Your task to perform on an android device: toggle notification dots Image 0: 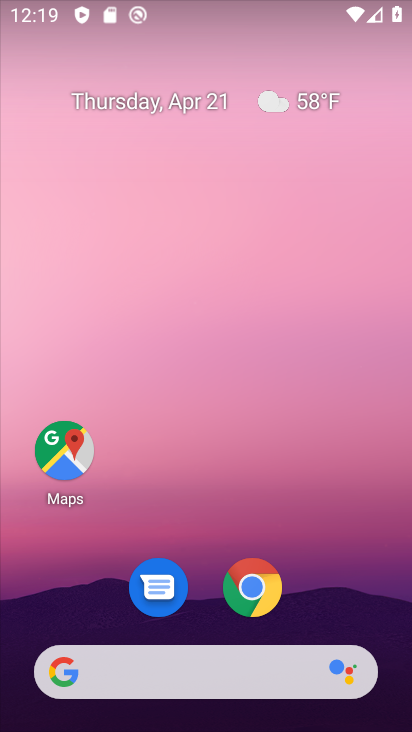
Step 0: drag from (300, 607) to (348, 68)
Your task to perform on an android device: toggle notification dots Image 1: 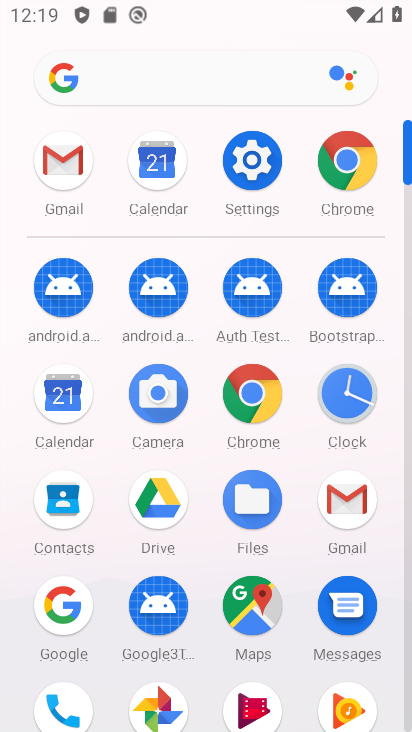
Step 1: click (234, 170)
Your task to perform on an android device: toggle notification dots Image 2: 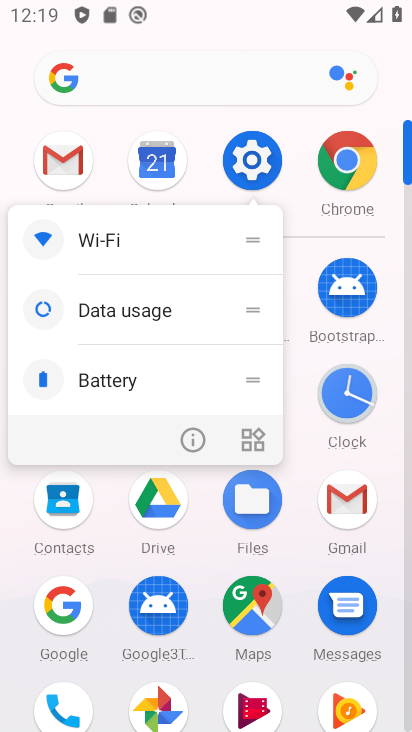
Step 2: click (251, 151)
Your task to perform on an android device: toggle notification dots Image 3: 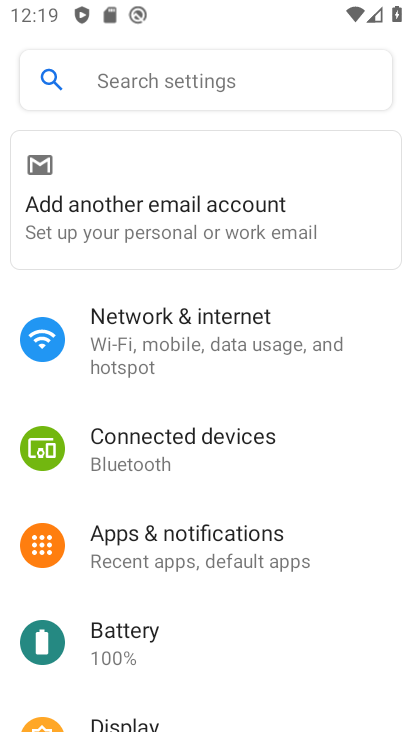
Step 3: click (196, 548)
Your task to perform on an android device: toggle notification dots Image 4: 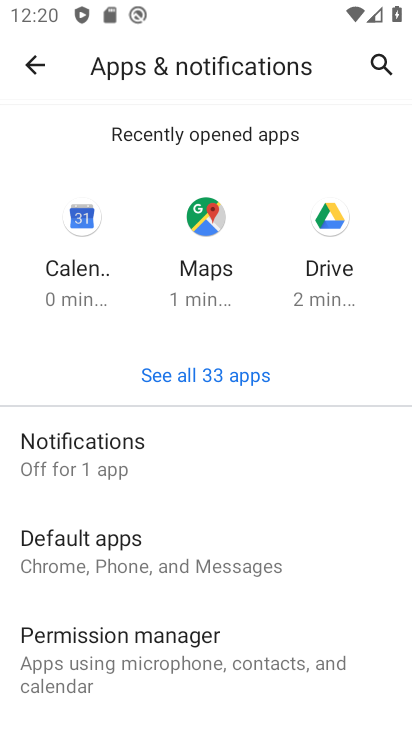
Step 4: click (112, 472)
Your task to perform on an android device: toggle notification dots Image 5: 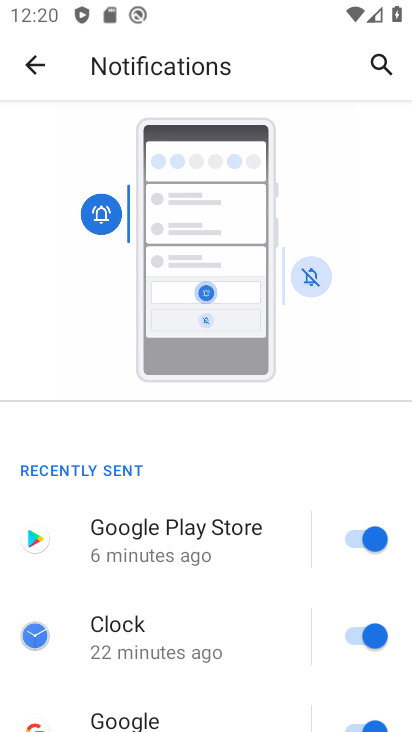
Step 5: drag from (147, 530) to (220, 294)
Your task to perform on an android device: toggle notification dots Image 6: 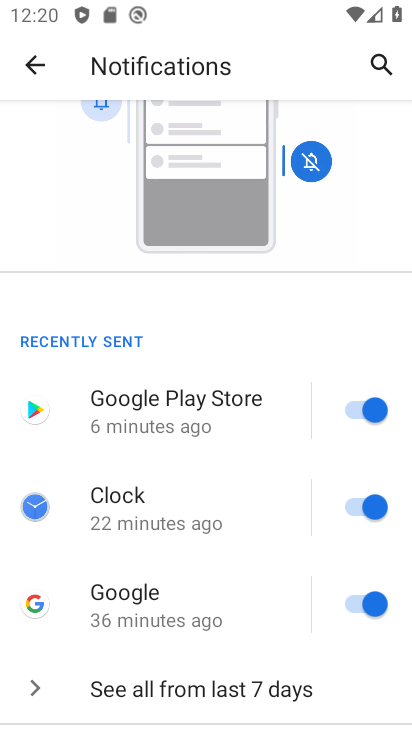
Step 6: drag from (199, 617) to (296, 158)
Your task to perform on an android device: toggle notification dots Image 7: 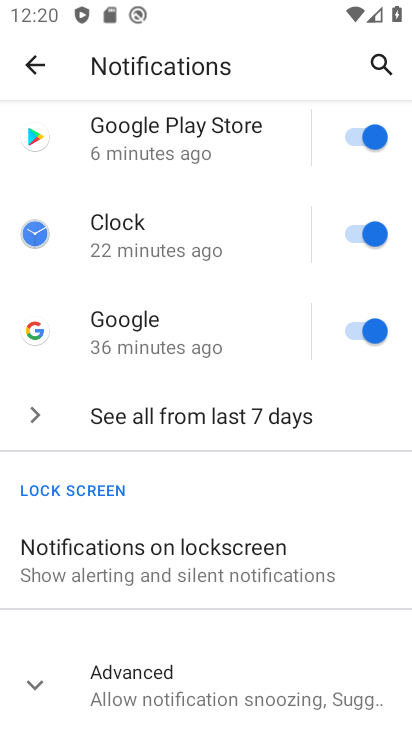
Step 7: click (163, 680)
Your task to perform on an android device: toggle notification dots Image 8: 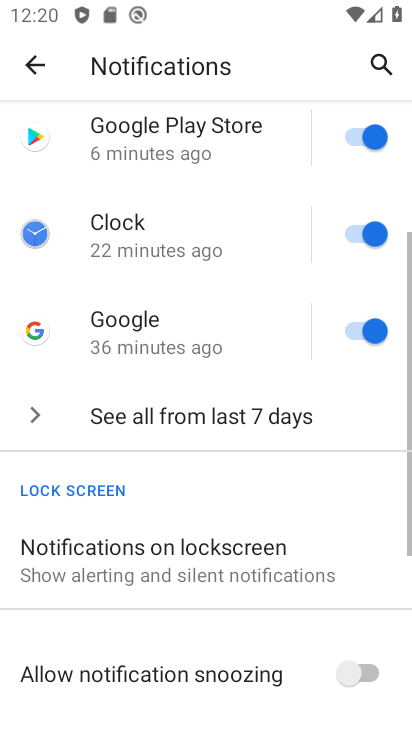
Step 8: drag from (188, 626) to (300, 180)
Your task to perform on an android device: toggle notification dots Image 9: 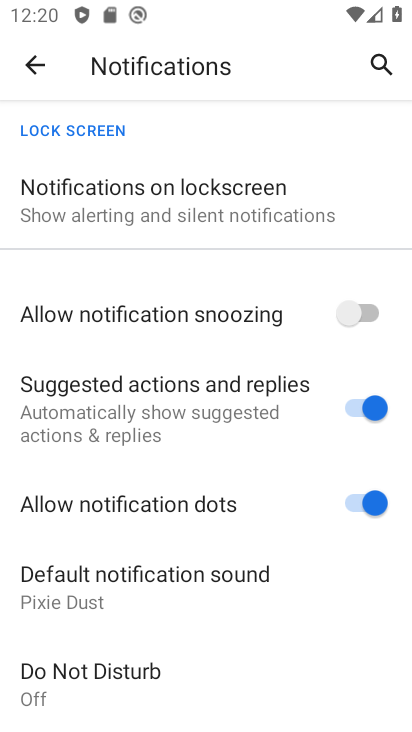
Step 9: click (340, 498)
Your task to perform on an android device: toggle notification dots Image 10: 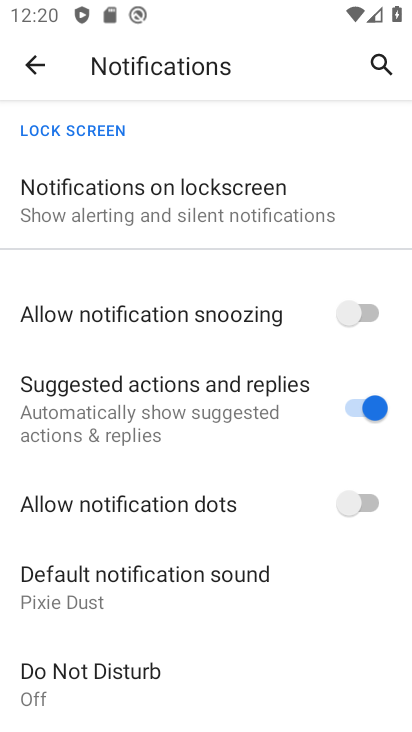
Step 10: task complete